Your task to perform on an android device: View the shopping cart on amazon.com. Search for "usb-c to usb-b" on amazon.com, select the first entry, and add it to the cart. Image 0: 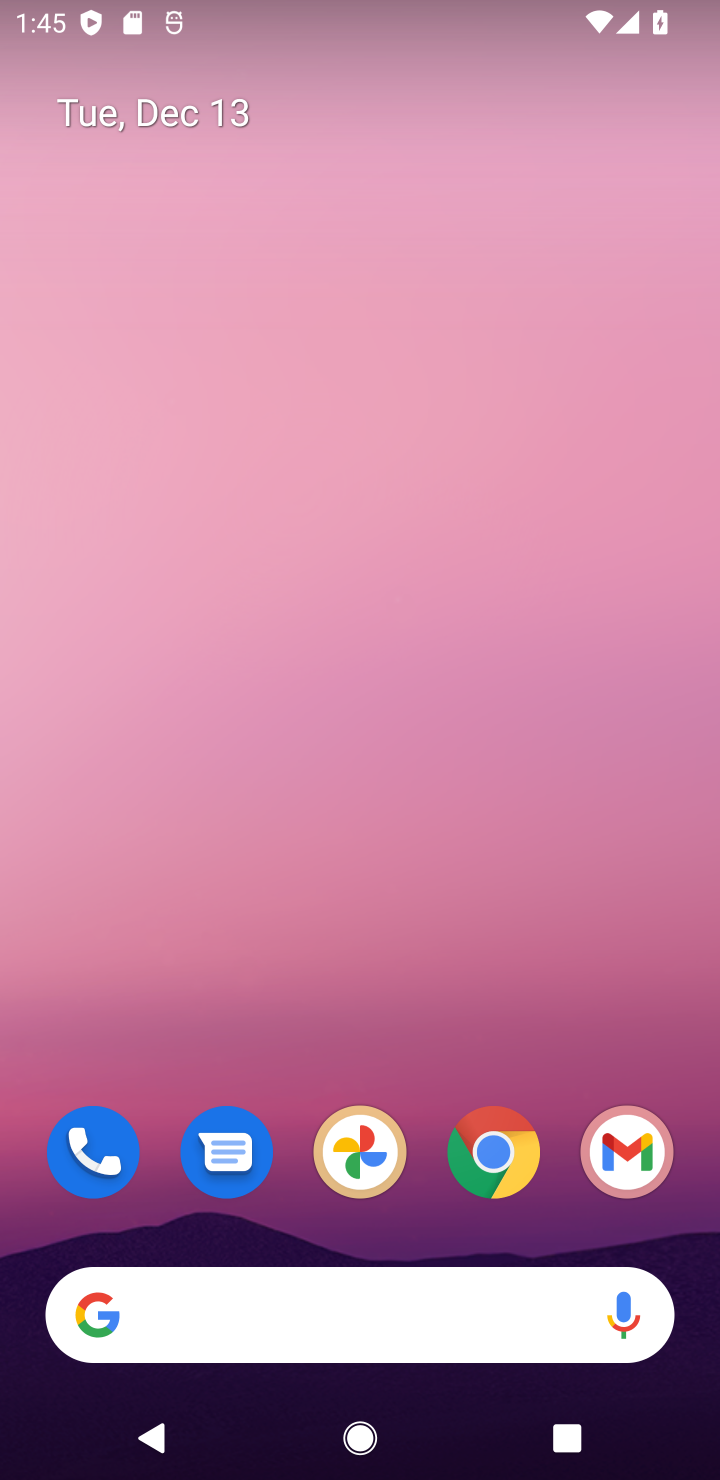
Step 0: drag from (308, 1220) to (227, 216)
Your task to perform on an android device: View the shopping cart on amazon.com. Search for "usb-c to usb-b" on amazon.com, select the first entry, and add it to the cart. Image 1: 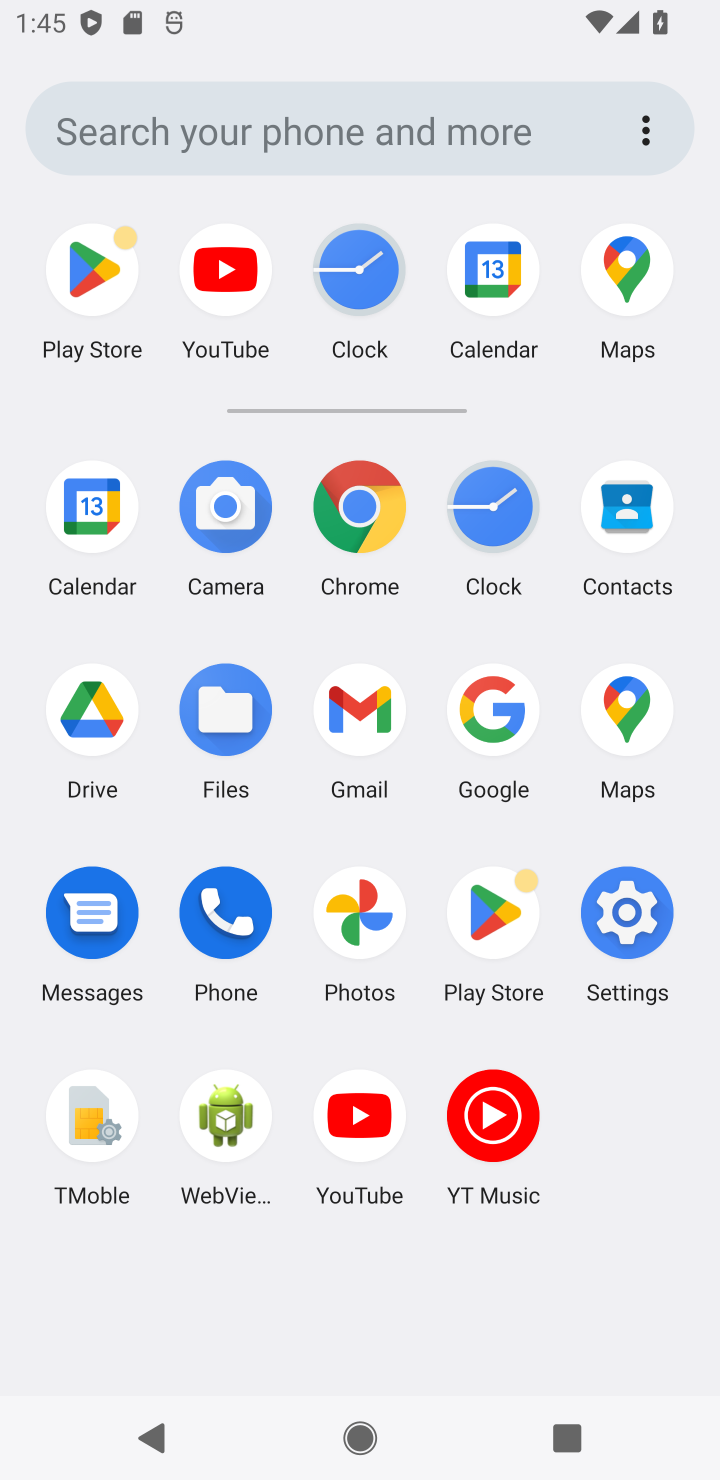
Step 1: click (476, 695)
Your task to perform on an android device: View the shopping cart on amazon.com. Search for "usb-c to usb-b" on amazon.com, select the first entry, and add it to the cart. Image 2: 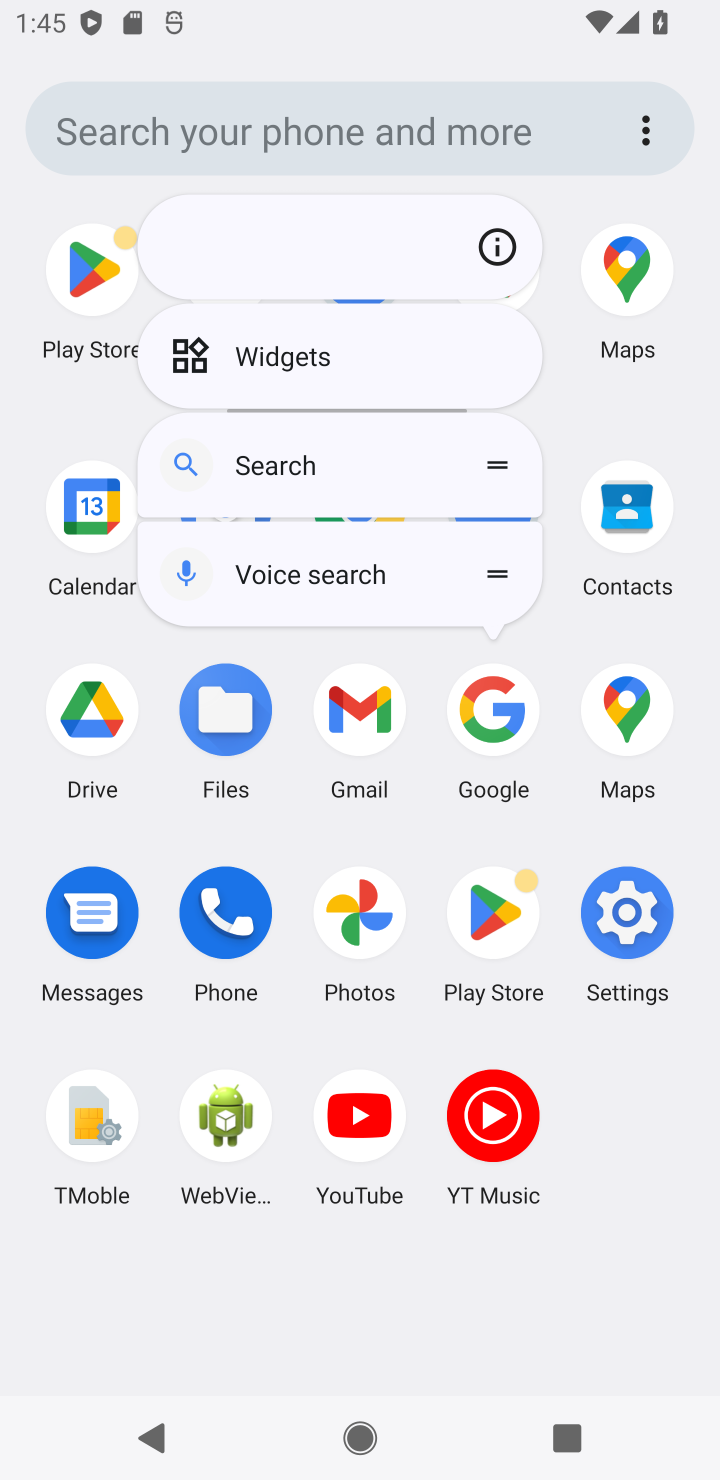
Step 2: click (496, 722)
Your task to perform on an android device: View the shopping cart on amazon.com. Search for "usb-c to usb-b" on amazon.com, select the first entry, and add it to the cart. Image 3: 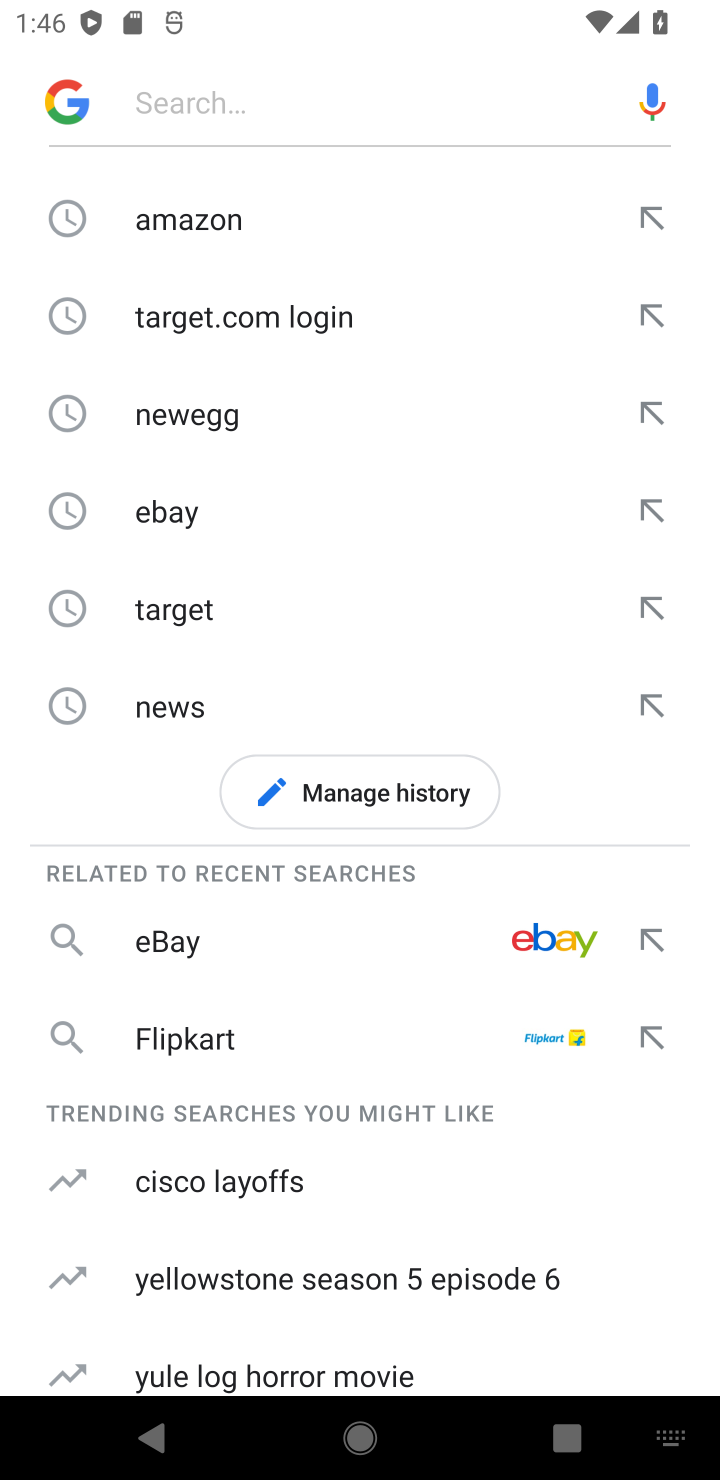
Step 3: click (197, 221)
Your task to perform on an android device: View the shopping cart on amazon.com. Search for "usb-c to usb-b" on amazon.com, select the first entry, and add it to the cart. Image 4: 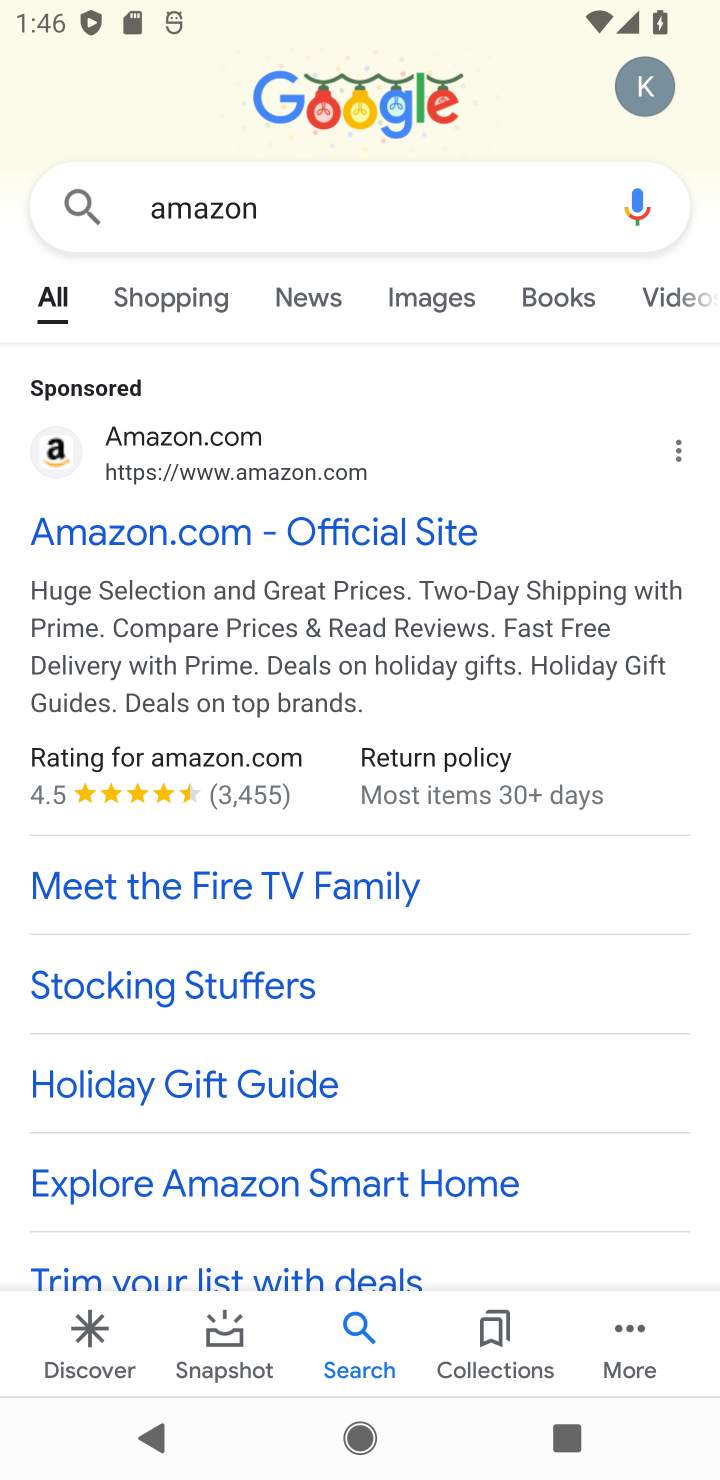
Step 4: click (185, 539)
Your task to perform on an android device: View the shopping cart on amazon.com. Search for "usb-c to usb-b" on amazon.com, select the first entry, and add it to the cart. Image 5: 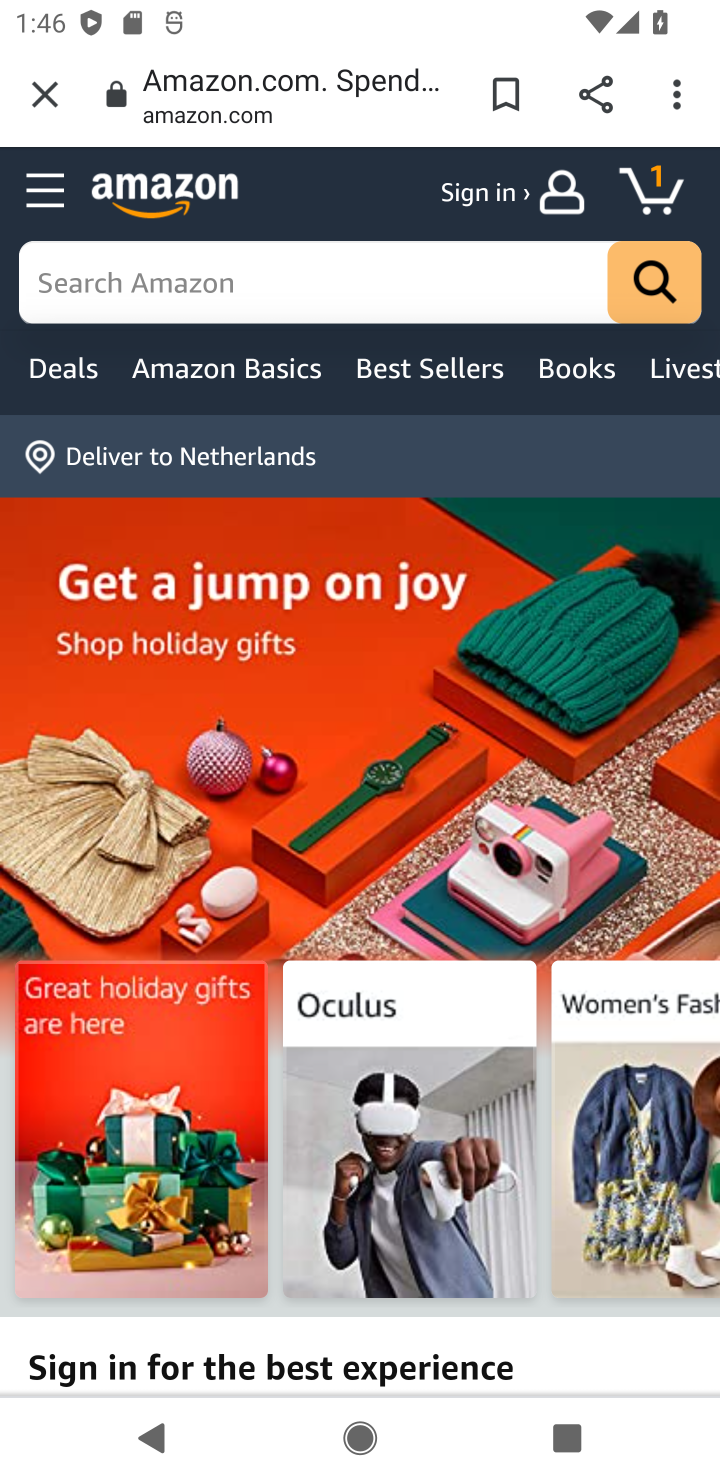
Step 5: click (53, 293)
Your task to perform on an android device: View the shopping cart on amazon.com. Search for "usb-c to usb-b" on amazon.com, select the first entry, and add it to the cart. Image 6: 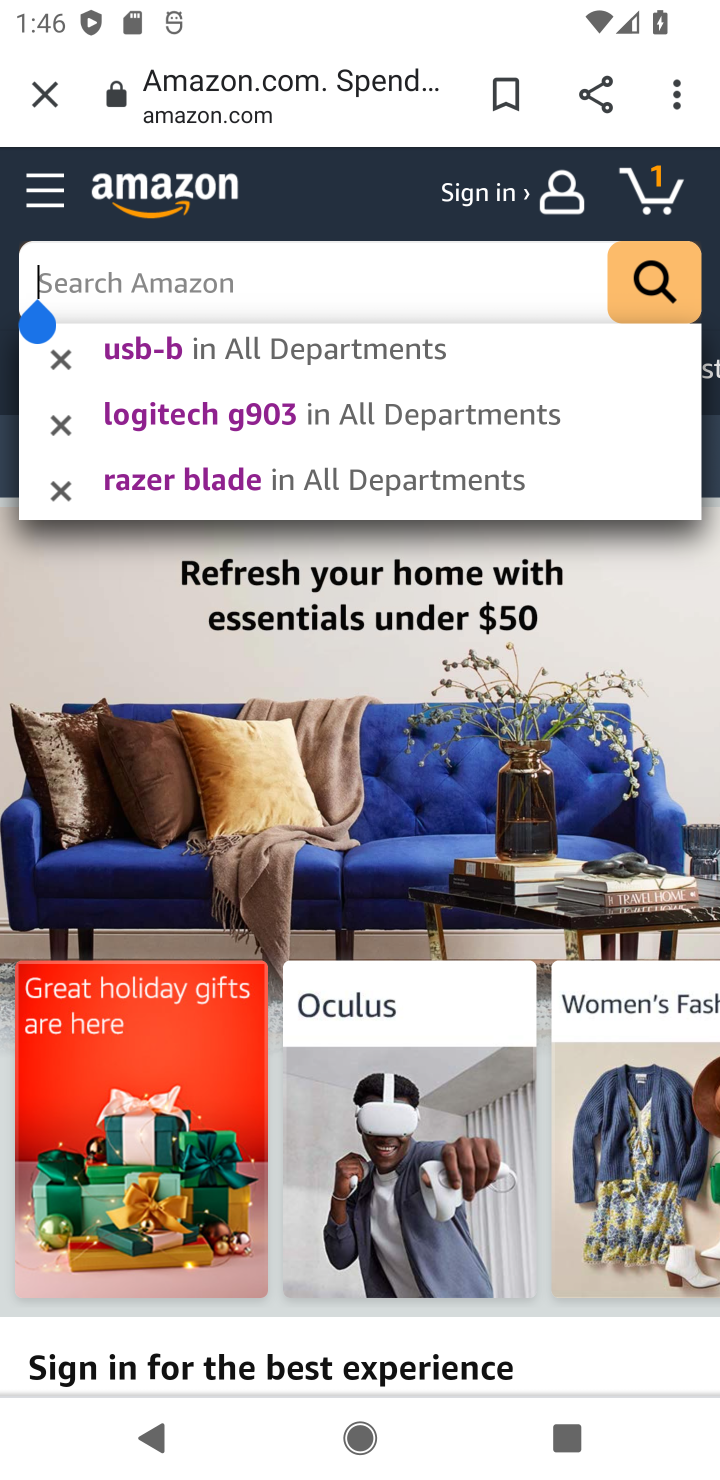
Step 6: click (654, 172)
Your task to perform on an android device: View the shopping cart on amazon.com. Search for "usb-c to usb-b" on amazon.com, select the first entry, and add it to the cart. Image 7: 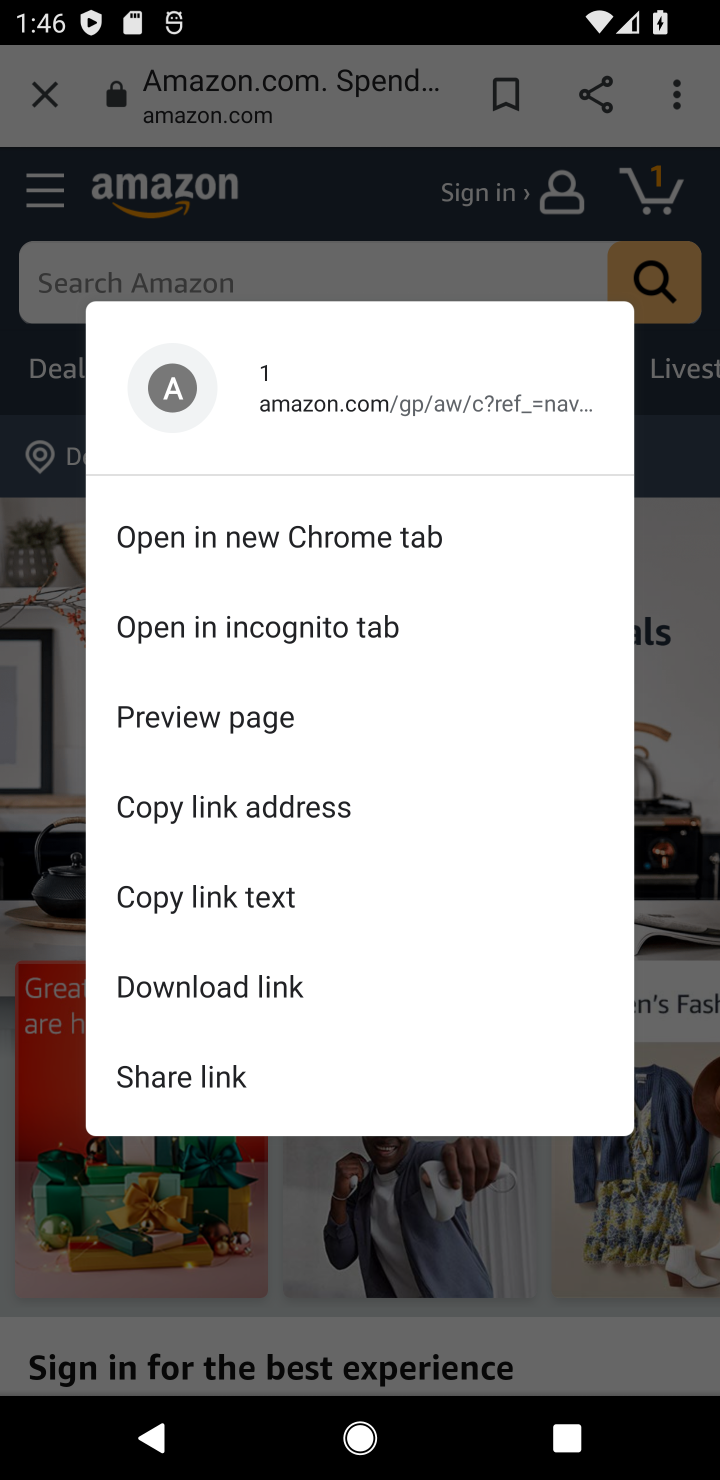
Step 7: click (561, 1183)
Your task to perform on an android device: View the shopping cart on amazon.com. Search for "usb-c to usb-b" on amazon.com, select the first entry, and add it to the cart. Image 8: 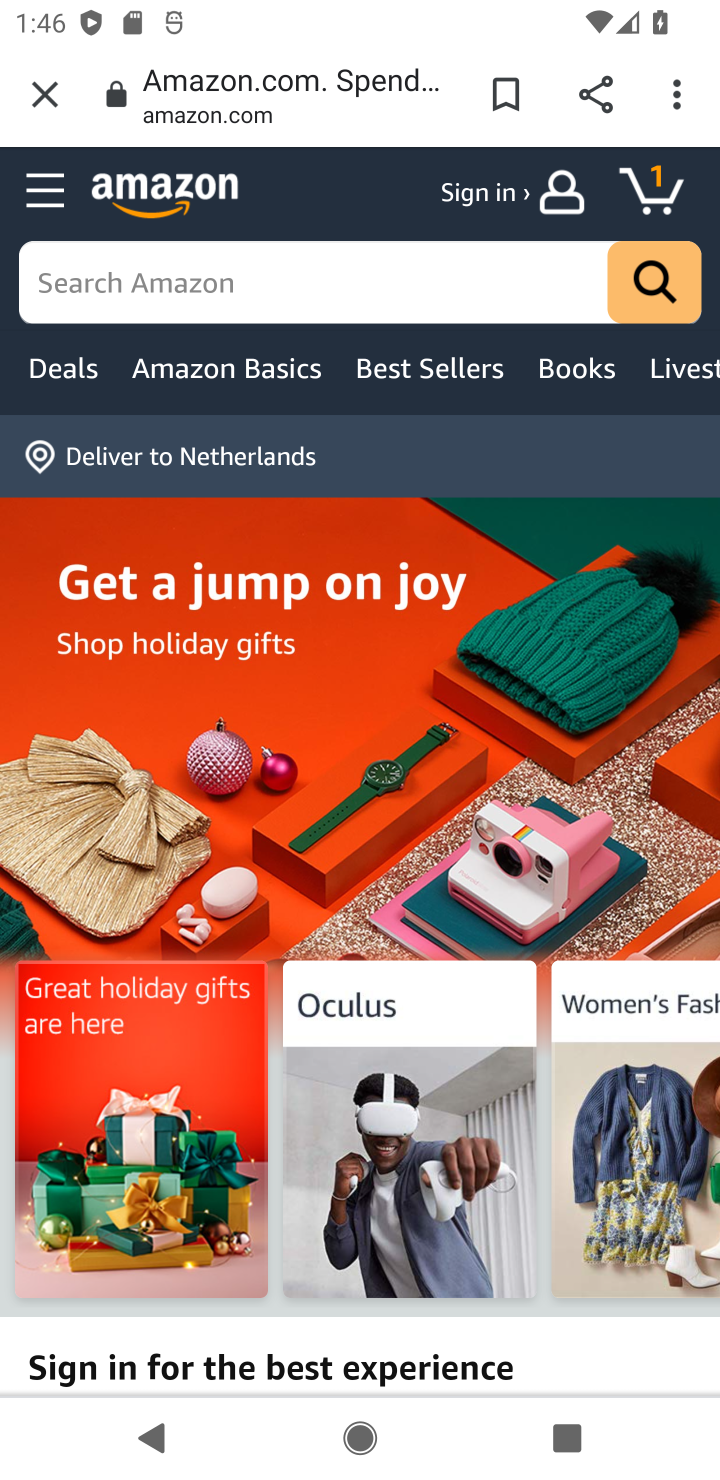
Step 8: click (76, 278)
Your task to perform on an android device: View the shopping cart on amazon.com. Search for "usb-c to usb-b" on amazon.com, select the first entry, and add it to the cart. Image 9: 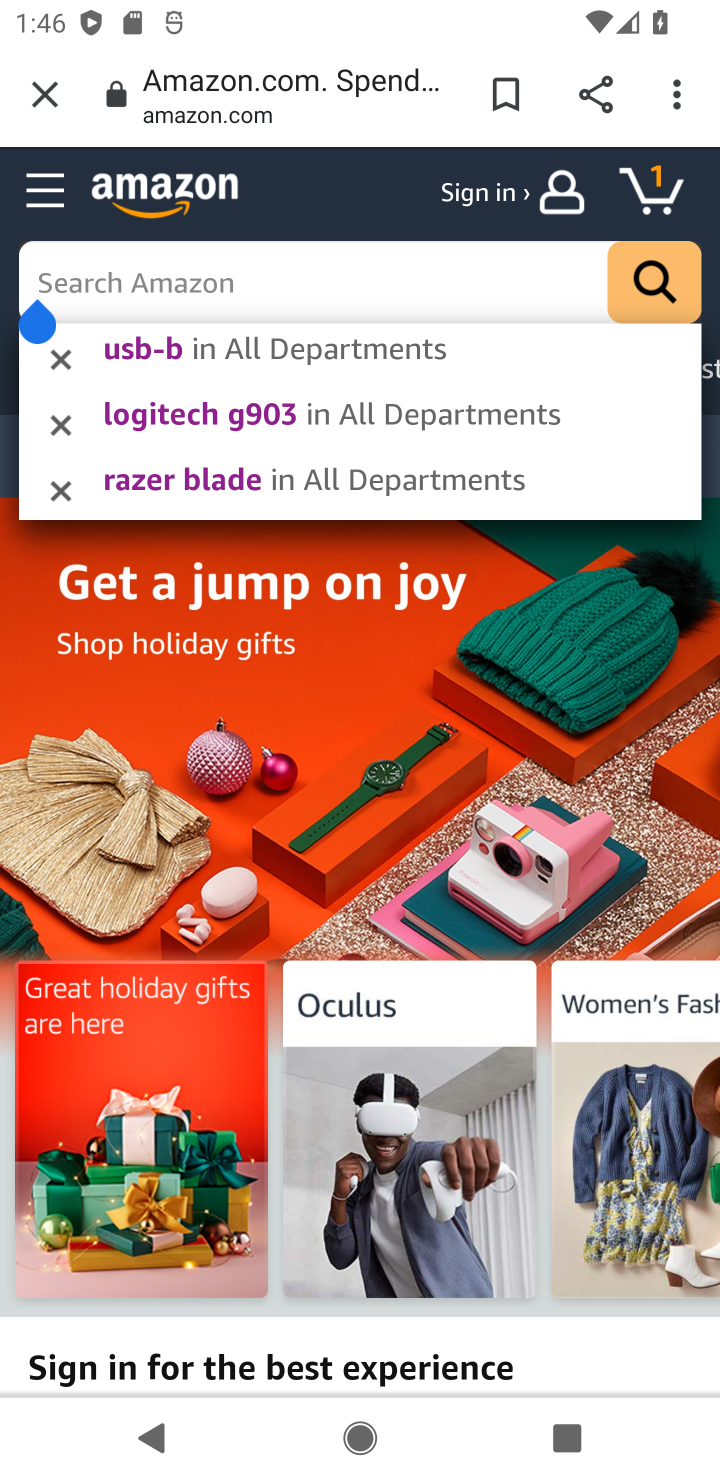
Step 9: type "usb-c to usb-b"
Your task to perform on an android device: View the shopping cart on amazon.com. Search for "usb-c to usb-b" on amazon.com, select the first entry, and add it to the cart. Image 10: 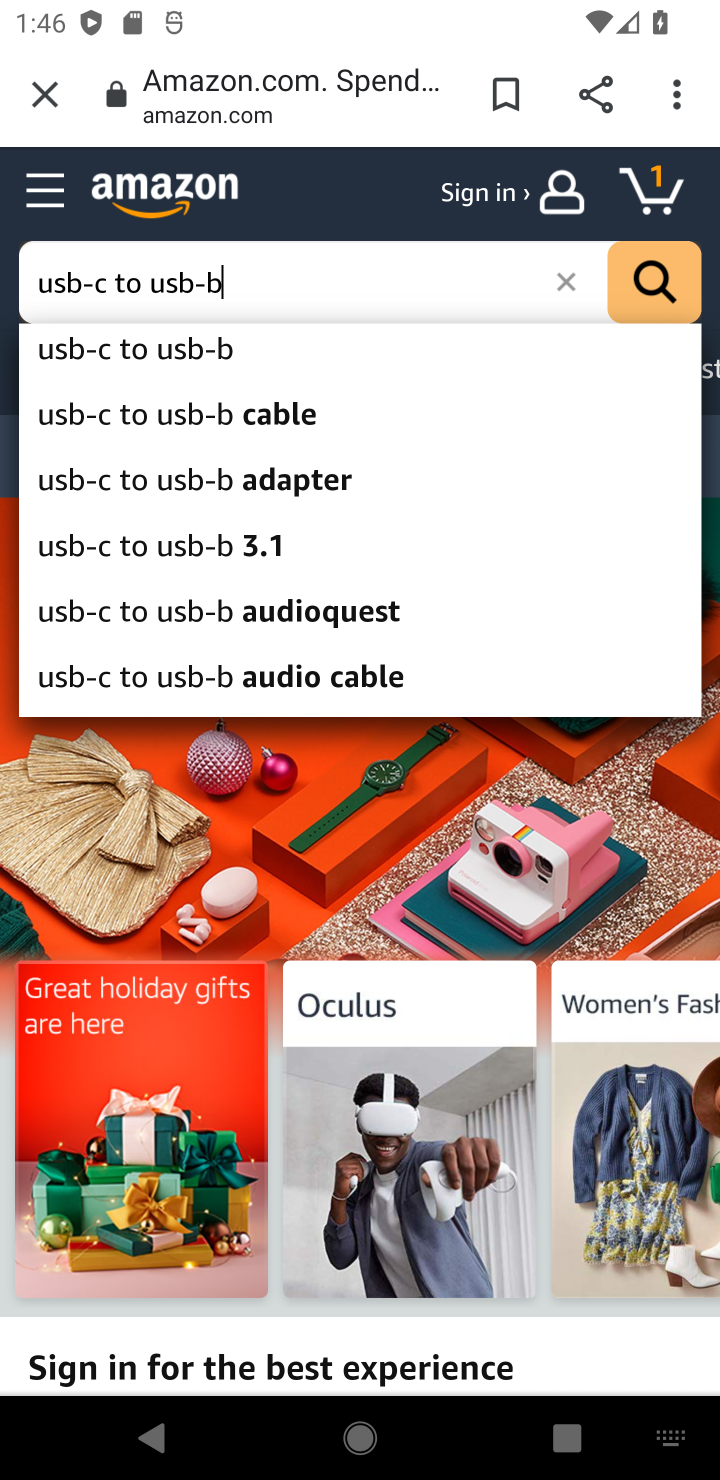
Step 10: click (153, 343)
Your task to perform on an android device: View the shopping cart on amazon.com. Search for "usb-c to usb-b" on amazon.com, select the first entry, and add it to the cart. Image 11: 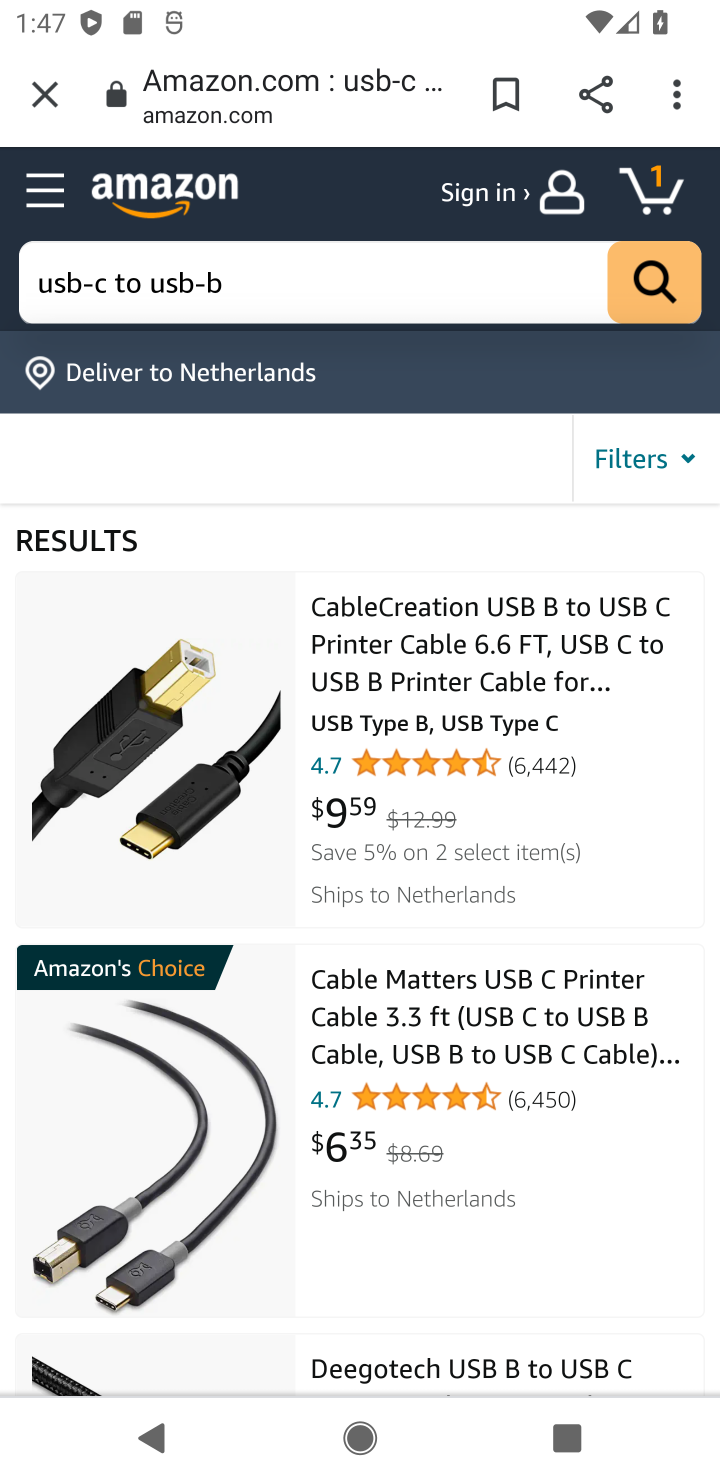
Step 11: click (369, 646)
Your task to perform on an android device: View the shopping cart on amazon.com. Search for "usb-c to usb-b" on amazon.com, select the first entry, and add it to the cart. Image 12: 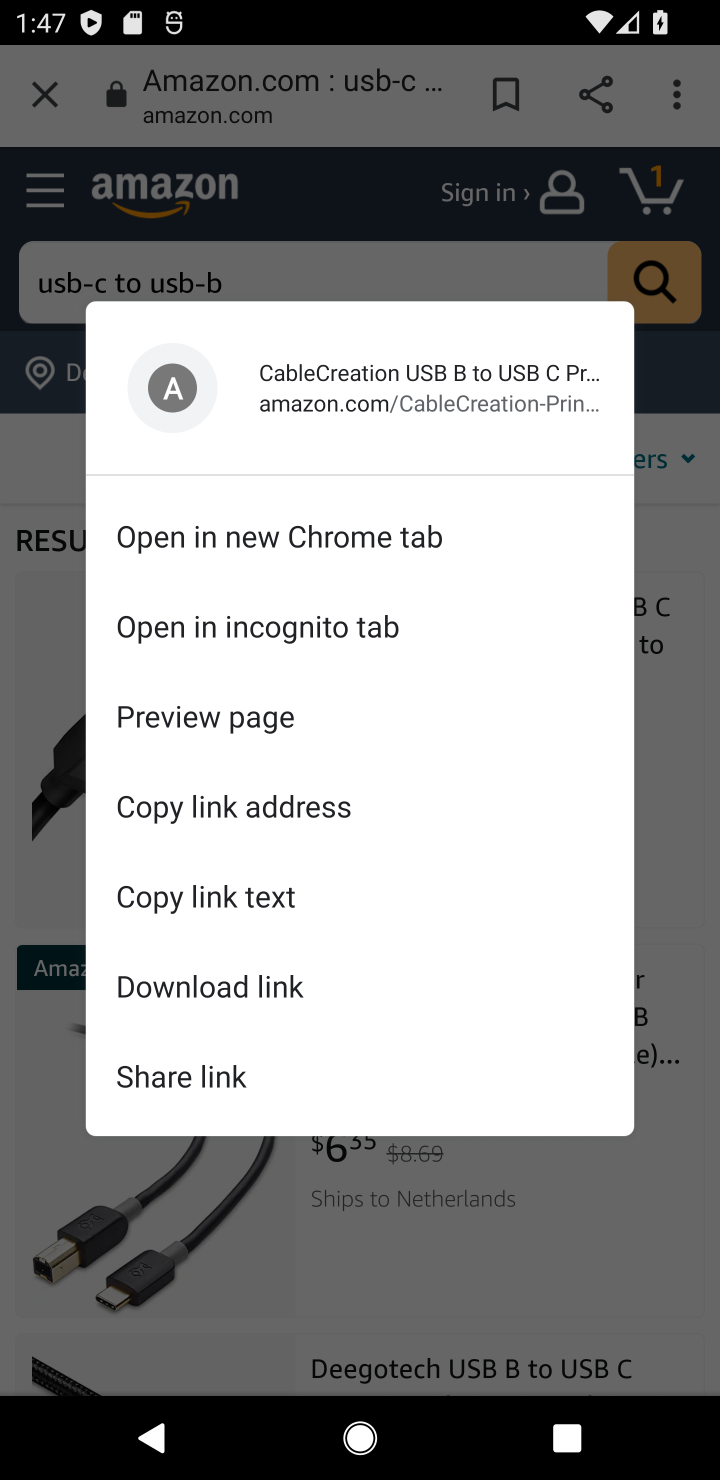
Step 12: click (655, 505)
Your task to perform on an android device: View the shopping cart on amazon.com. Search for "usb-c to usb-b" on amazon.com, select the first entry, and add it to the cart. Image 13: 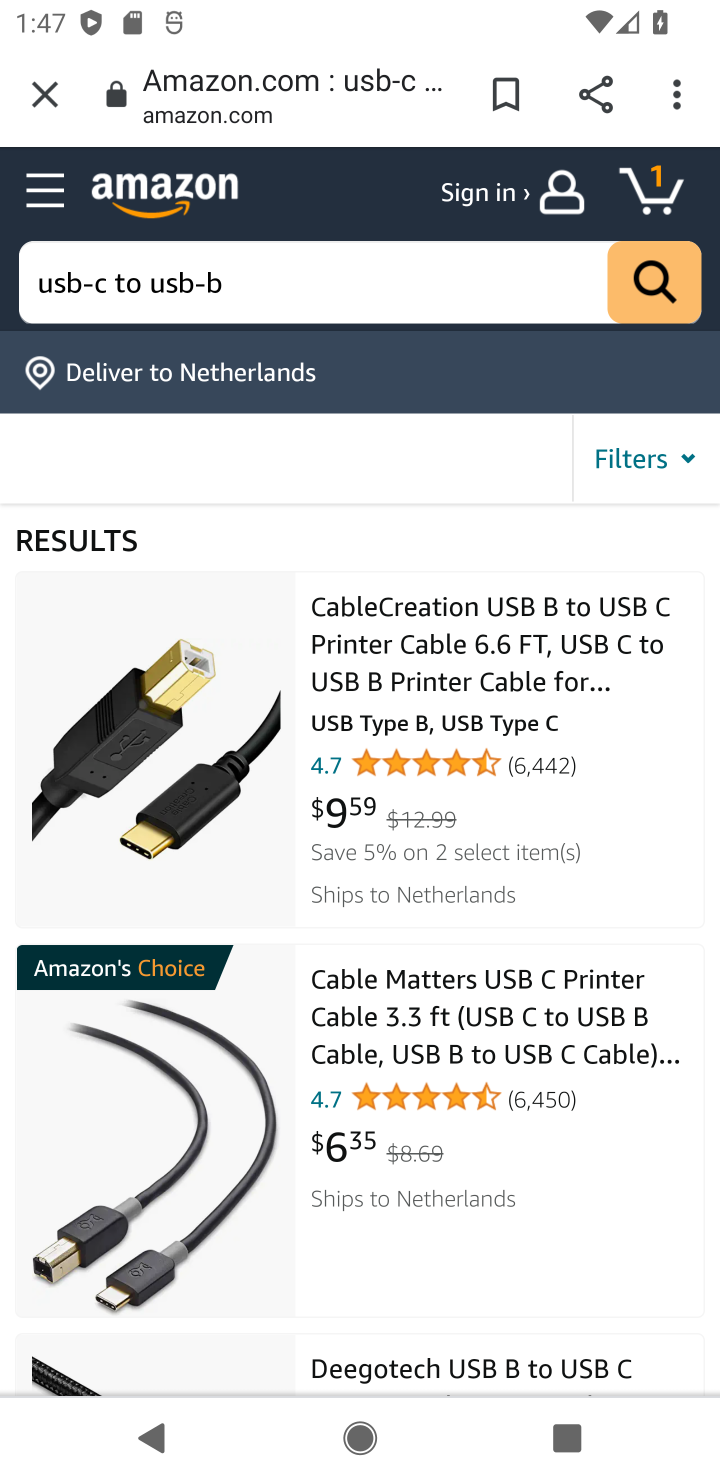
Step 13: drag from (454, 827) to (405, 399)
Your task to perform on an android device: View the shopping cart on amazon.com. Search for "usb-c to usb-b" on amazon.com, select the first entry, and add it to the cart. Image 14: 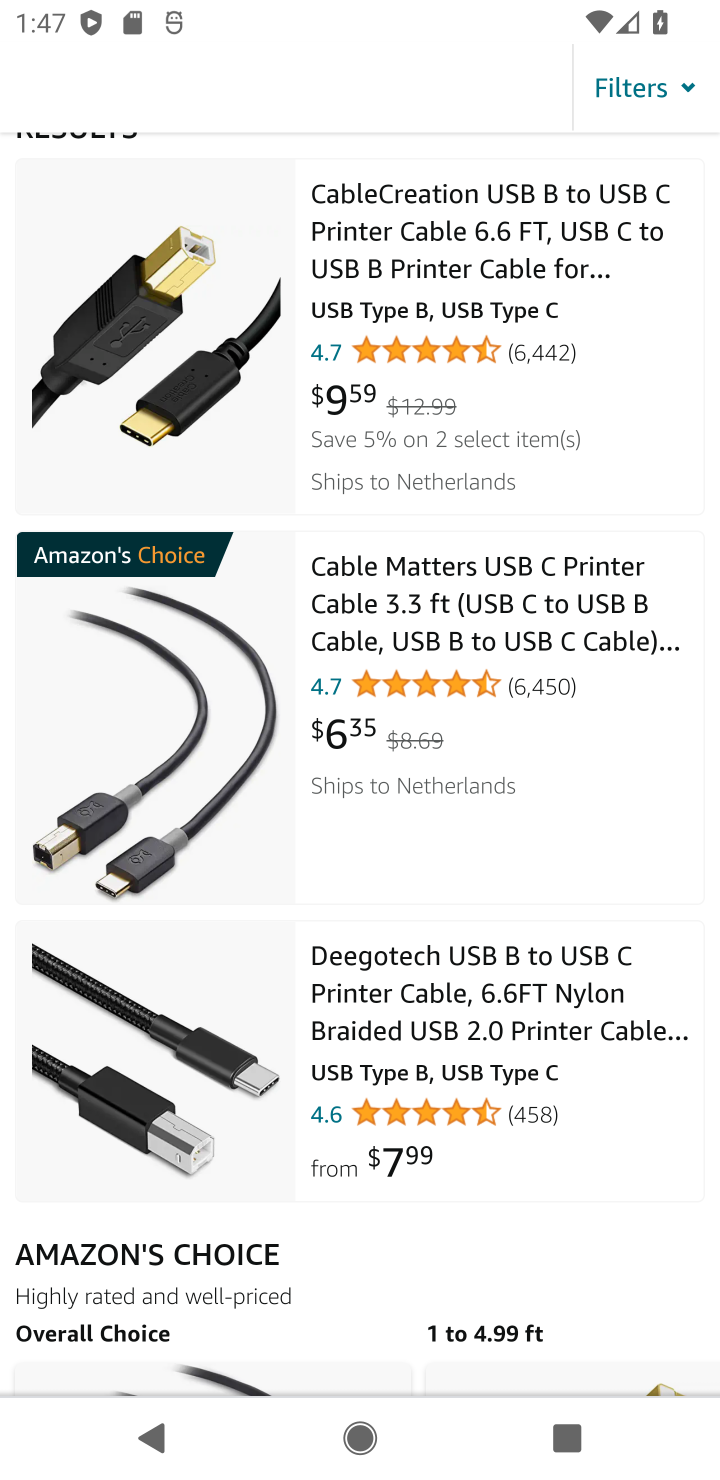
Step 14: click (315, 242)
Your task to perform on an android device: View the shopping cart on amazon.com. Search for "usb-c to usb-b" on amazon.com, select the first entry, and add it to the cart. Image 15: 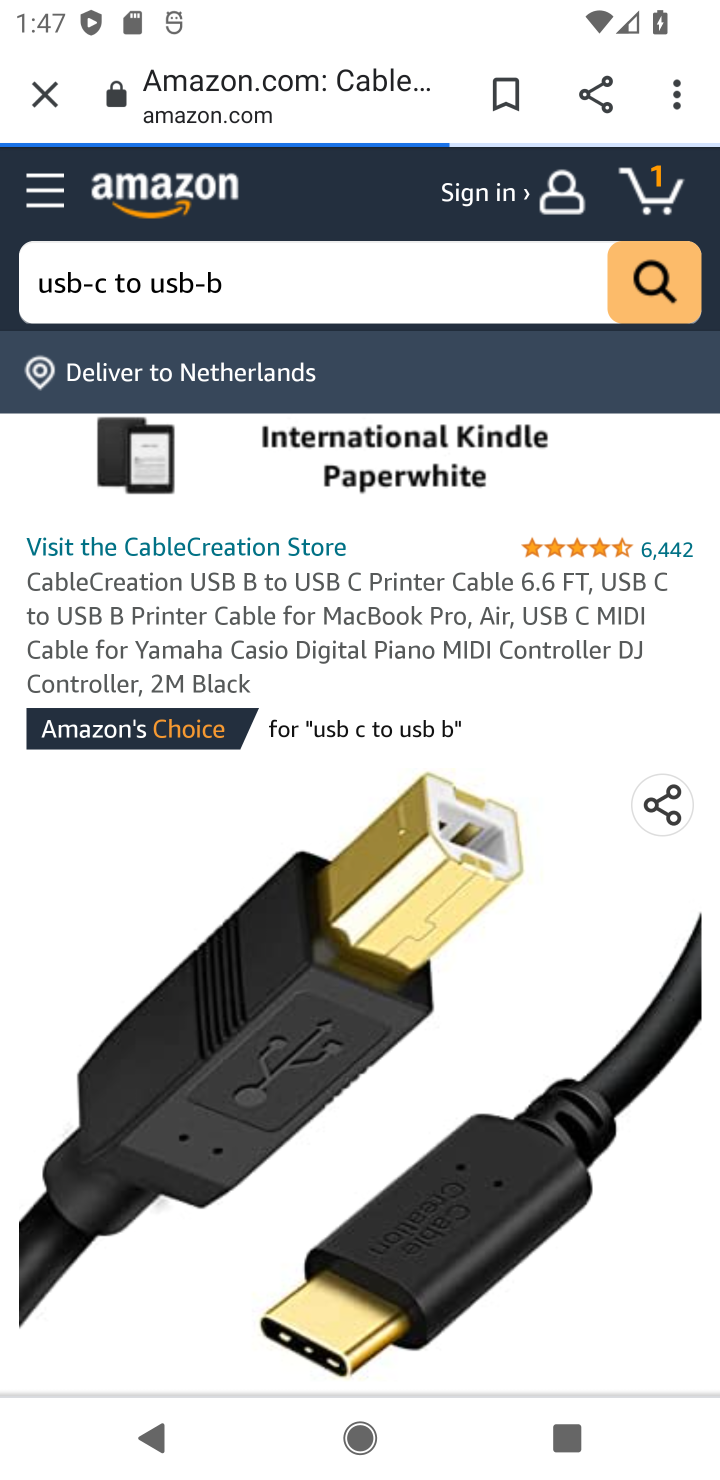
Step 15: drag from (504, 1166) to (380, 565)
Your task to perform on an android device: View the shopping cart on amazon.com. Search for "usb-c to usb-b" on amazon.com, select the first entry, and add it to the cart. Image 16: 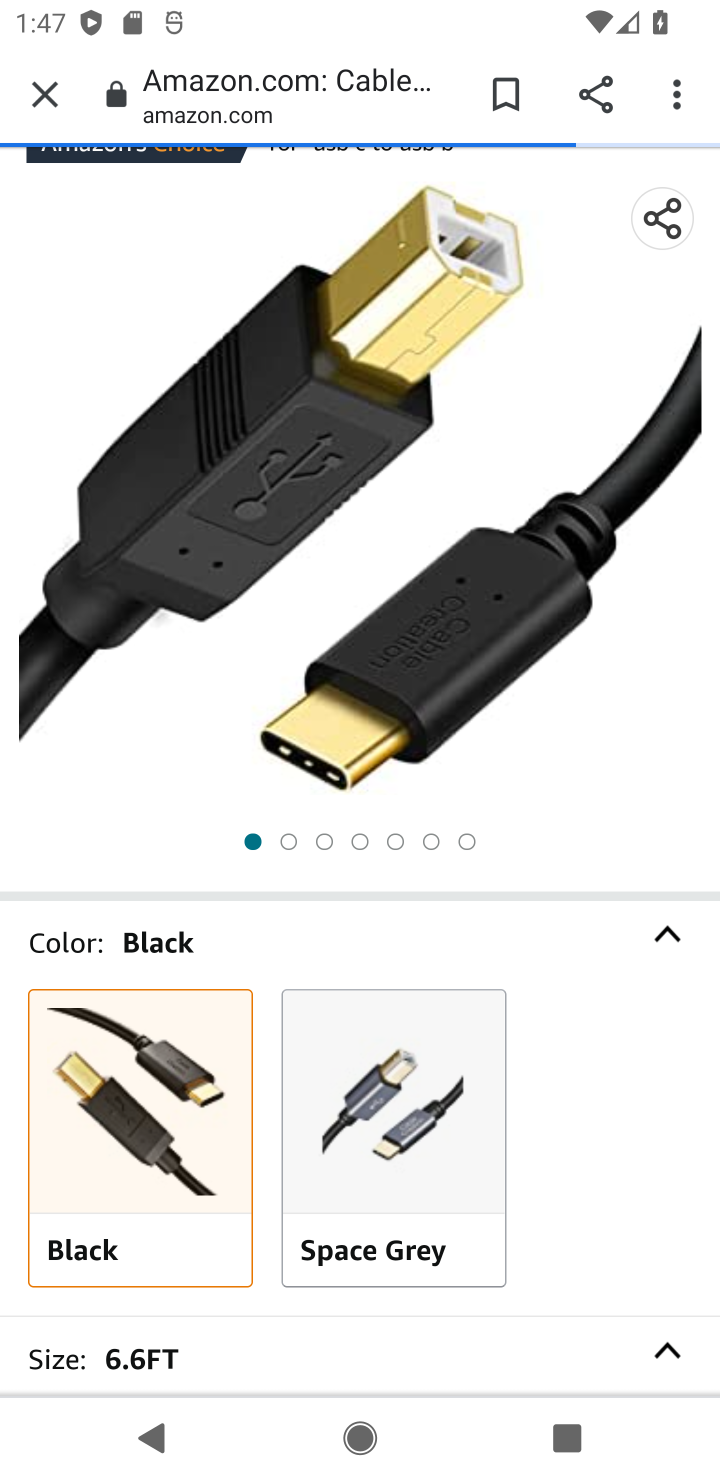
Step 16: drag from (575, 1257) to (497, 549)
Your task to perform on an android device: View the shopping cart on amazon.com. Search for "usb-c to usb-b" on amazon.com, select the first entry, and add it to the cart. Image 17: 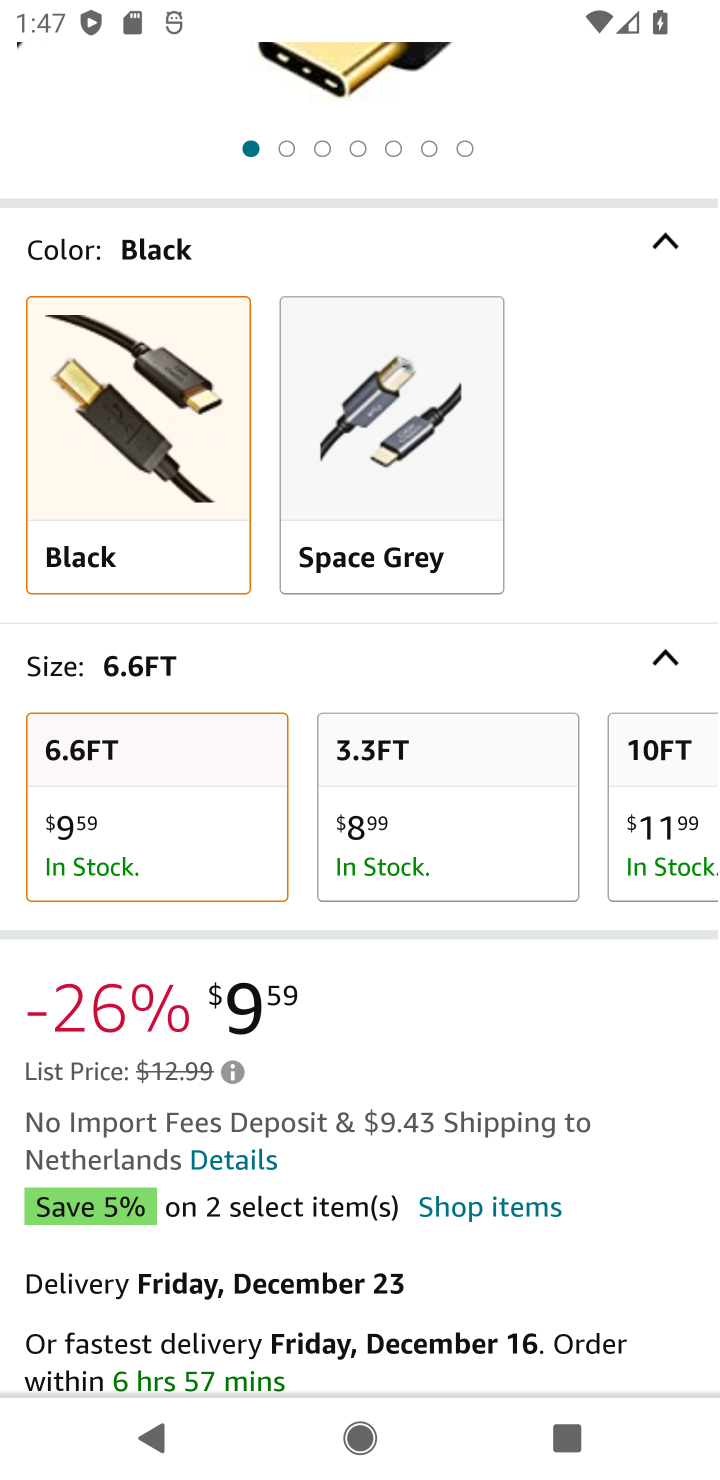
Step 17: drag from (569, 1176) to (482, 529)
Your task to perform on an android device: View the shopping cart on amazon.com. Search for "usb-c to usb-b" on amazon.com, select the first entry, and add it to the cart. Image 18: 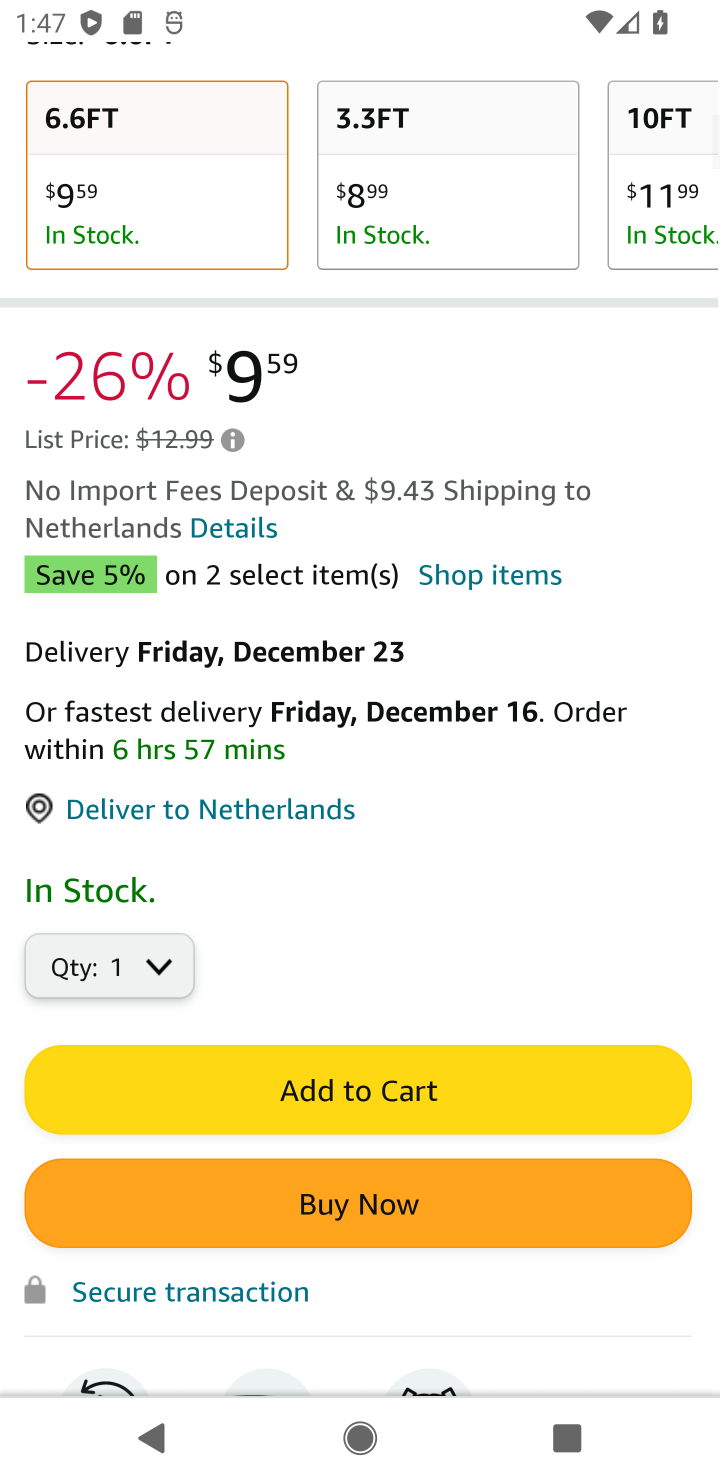
Step 18: click (272, 1092)
Your task to perform on an android device: View the shopping cart on amazon.com. Search for "usb-c to usb-b" on amazon.com, select the first entry, and add it to the cart. Image 19: 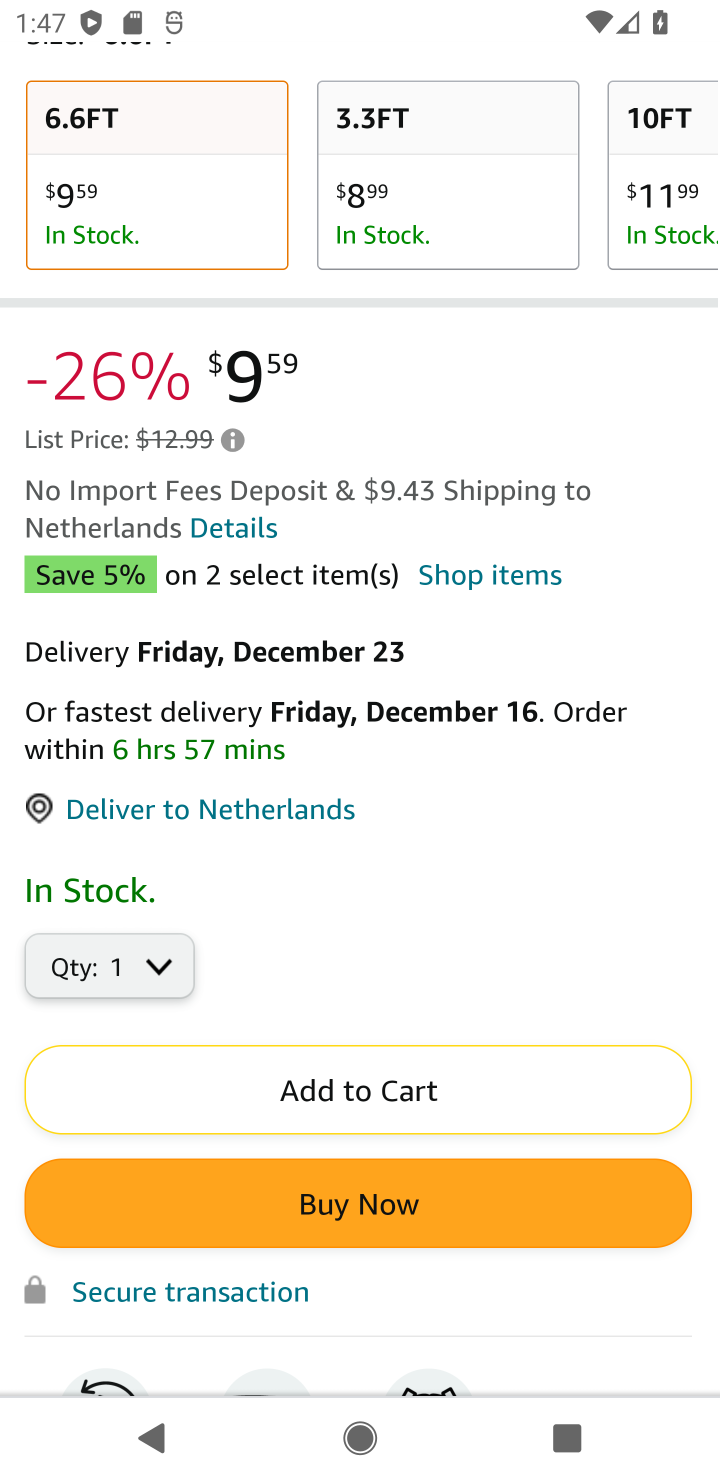
Step 19: click (296, 1090)
Your task to perform on an android device: View the shopping cart on amazon.com. Search for "usb-c to usb-b" on amazon.com, select the first entry, and add it to the cart. Image 20: 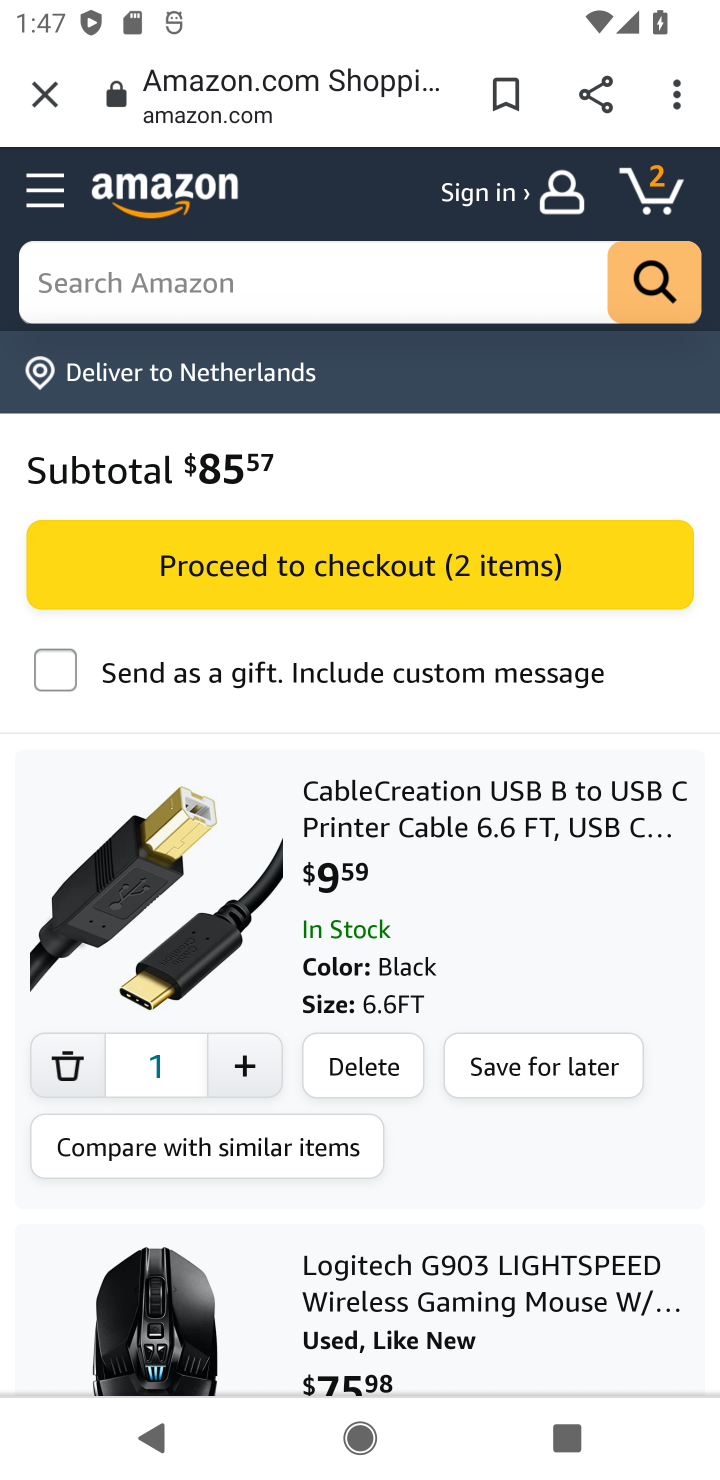
Step 20: task complete